Your task to perform on an android device: Open maps Image 0: 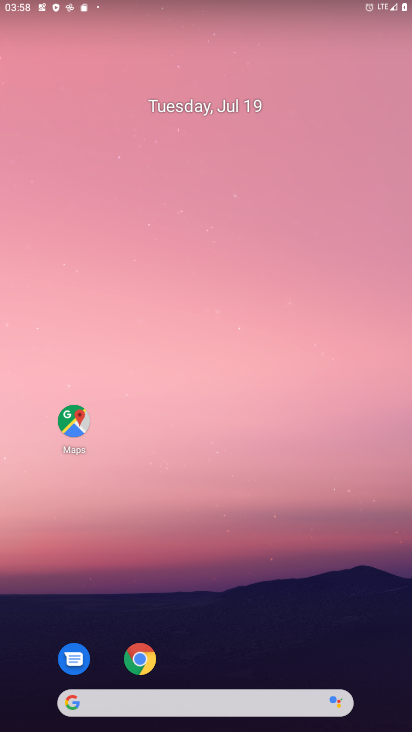
Step 0: press home button
Your task to perform on an android device: Open maps Image 1: 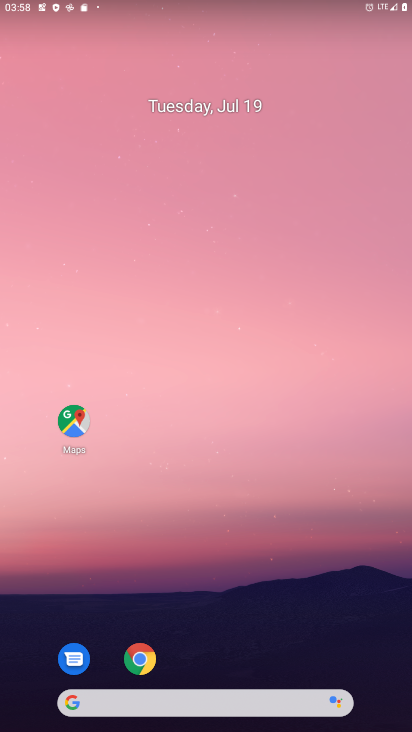
Step 1: drag from (217, 650) to (233, 570)
Your task to perform on an android device: Open maps Image 2: 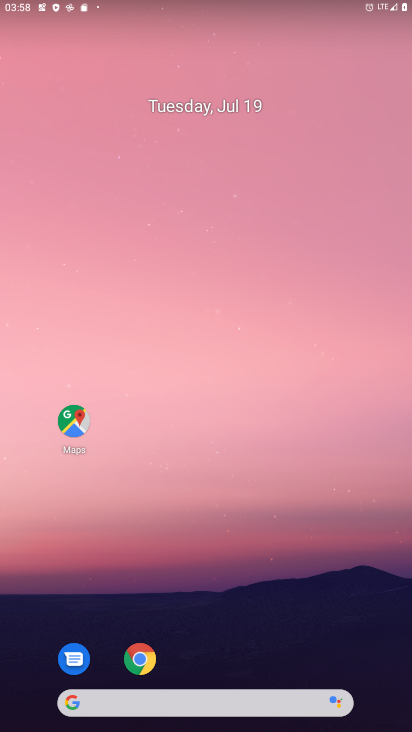
Step 2: click (75, 413)
Your task to perform on an android device: Open maps Image 3: 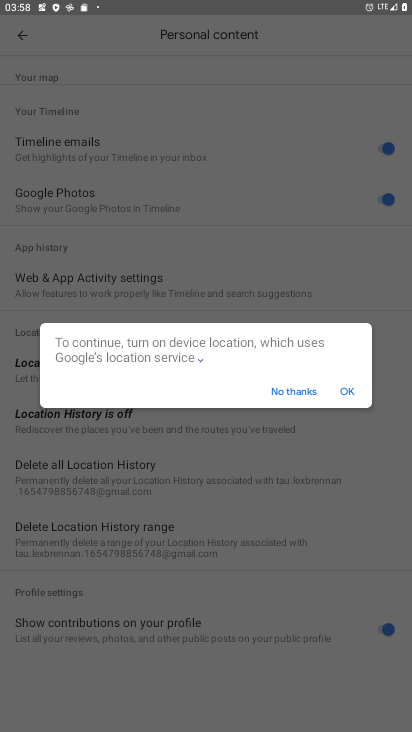
Step 3: task complete